Your task to perform on an android device: Open Google Image 0: 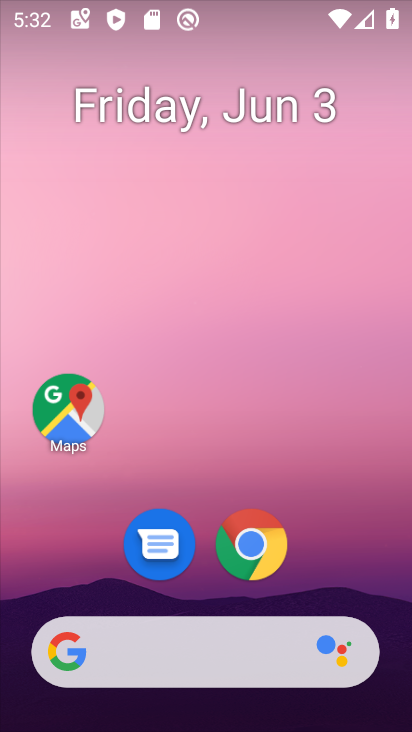
Step 0: drag from (330, 559) to (336, 68)
Your task to perform on an android device: Open Google Image 1: 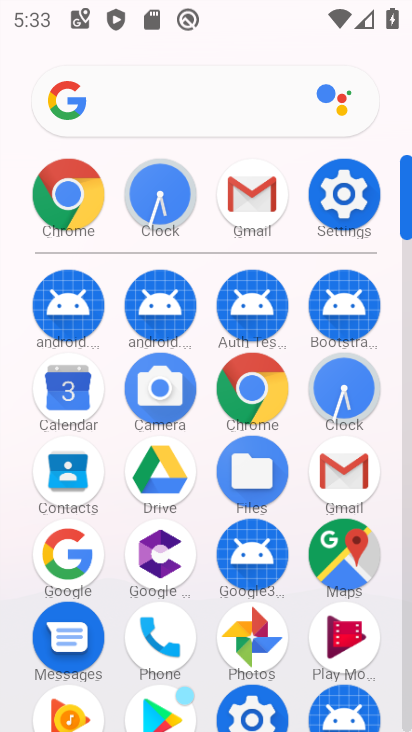
Step 1: click (56, 550)
Your task to perform on an android device: Open Google Image 2: 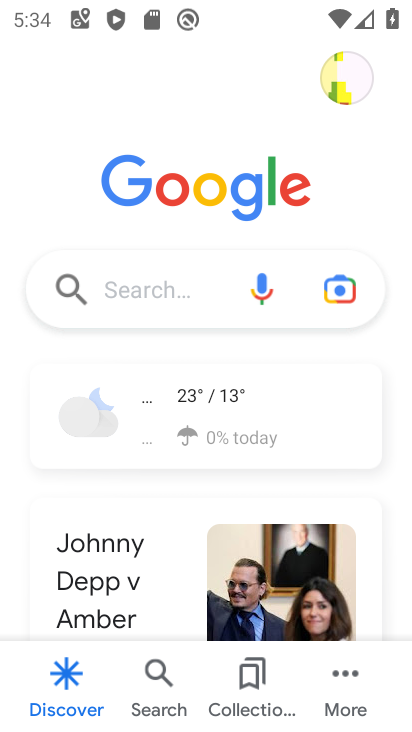
Step 2: task complete